Your task to perform on an android device: change notification settings in the gmail app Image 0: 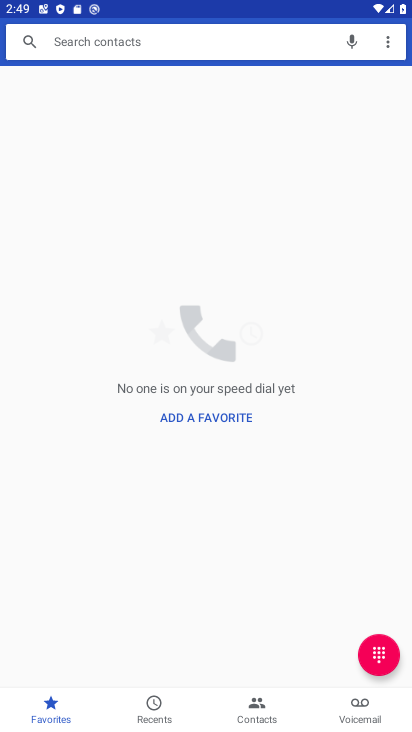
Step 0: press home button
Your task to perform on an android device: change notification settings in the gmail app Image 1: 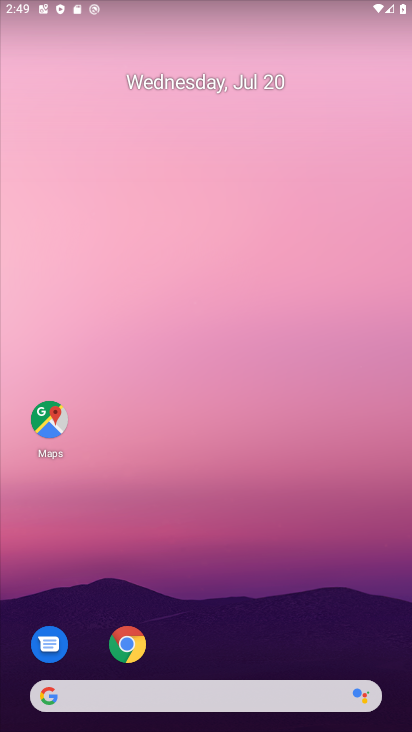
Step 1: drag from (260, 617) to (303, 44)
Your task to perform on an android device: change notification settings in the gmail app Image 2: 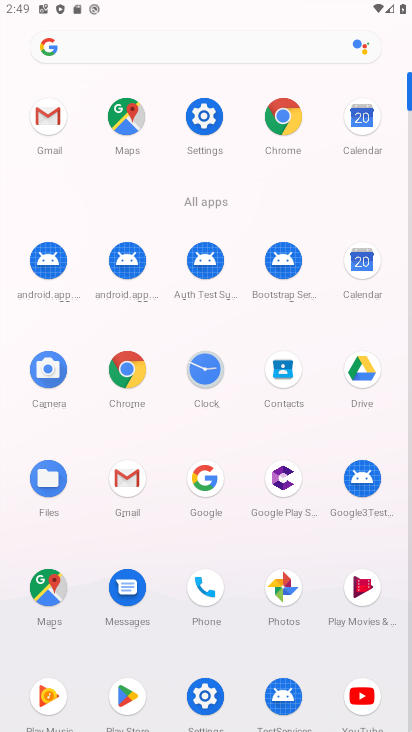
Step 2: click (58, 121)
Your task to perform on an android device: change notification settings in the gmail app Image 3: 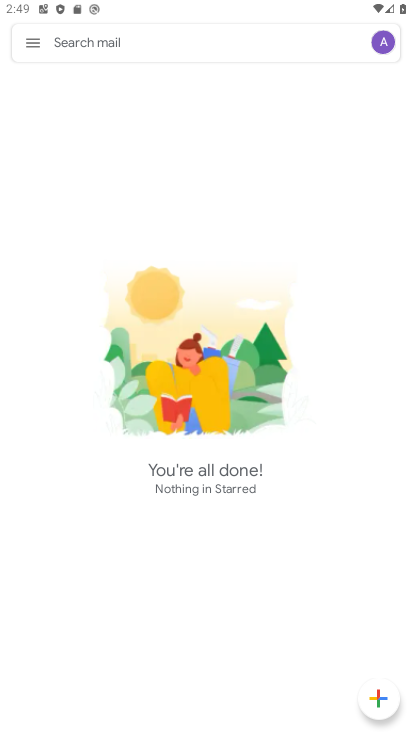
Step 3: click (26, 52)
Your task to perform on an android device: change notification settings in the gmail app Image 4: 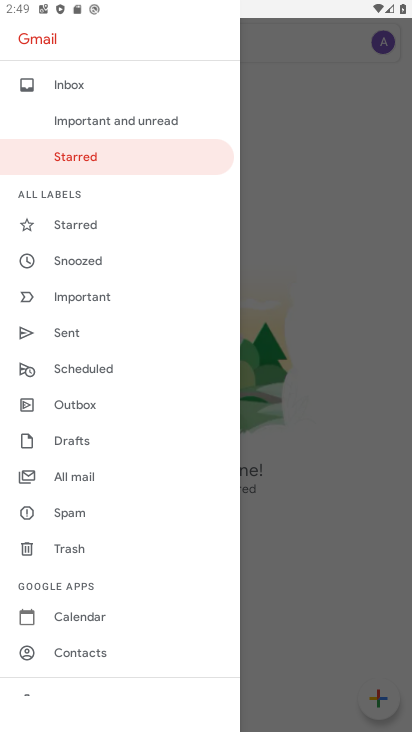
Step 4: drag from (96, 623) to (91, 514)
Your task to perform on an android device: change notification settings in the gmail app Image 5: 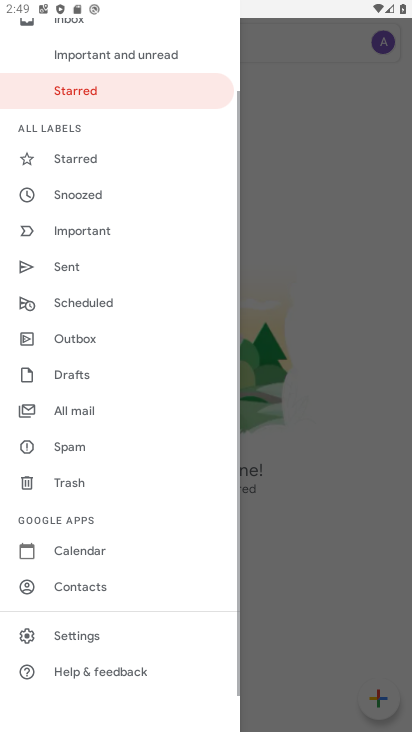
Step 5: click (91, 626)
Your task to perform on an android device: change notification settings in the gmail app Image 6: 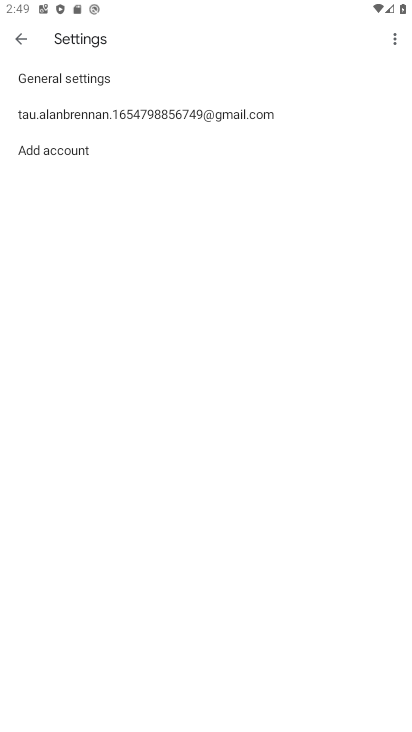
Step 6: click (152, 126)
Your task to perform on an android device: change notification settings in the gmail app Image 7: 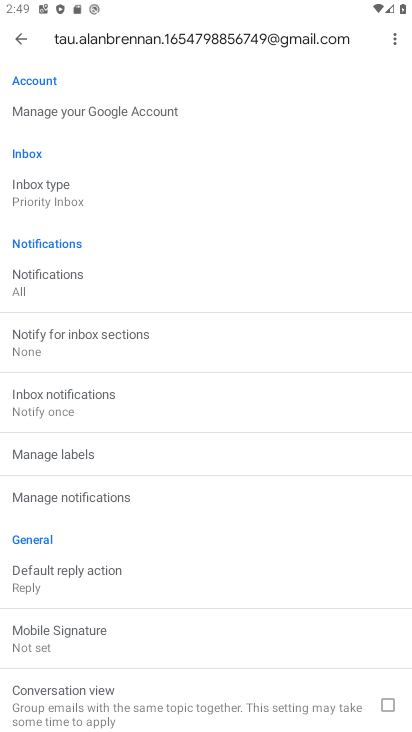
Step 7: click (46, 259)
Your task to perform on an android device: change notification settings in the gmail app Image 8: 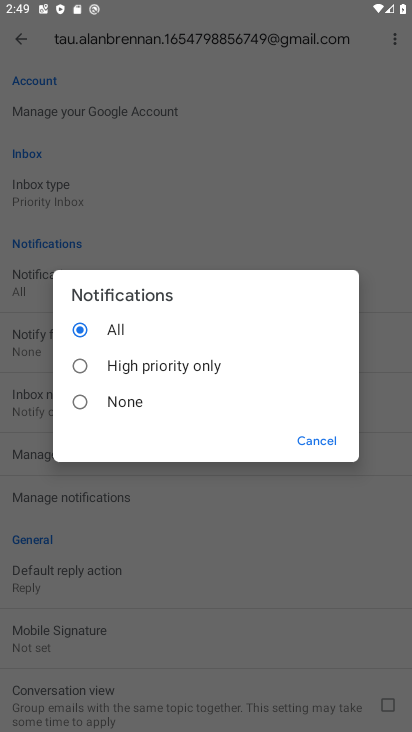
Step 8: click (114, 394)
Your task to perform on an android device: change notification settings in the gmail app Image 9: 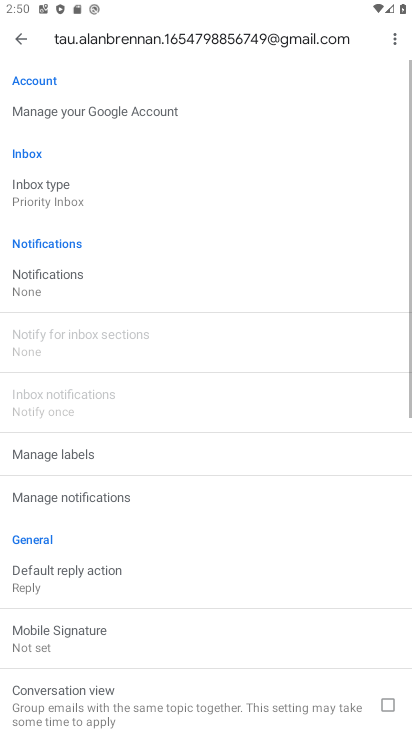
Step 9: task complete